Your task to perform on an android device: Open Yahoo.com Image 0: 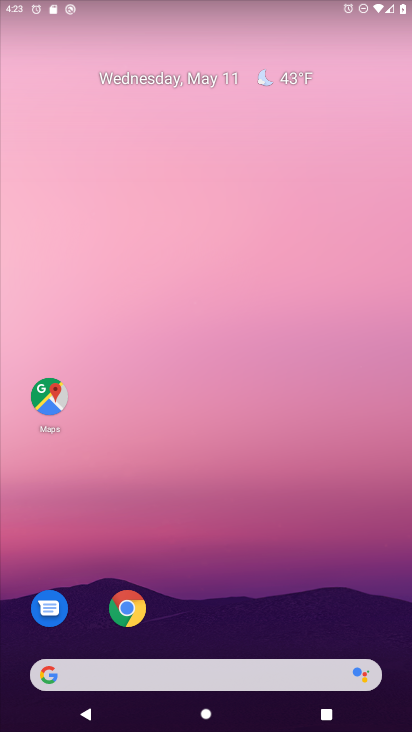
Step 0: click (128, 613)
Your task to perform on an android device: Open Yahoo.com Image 1: 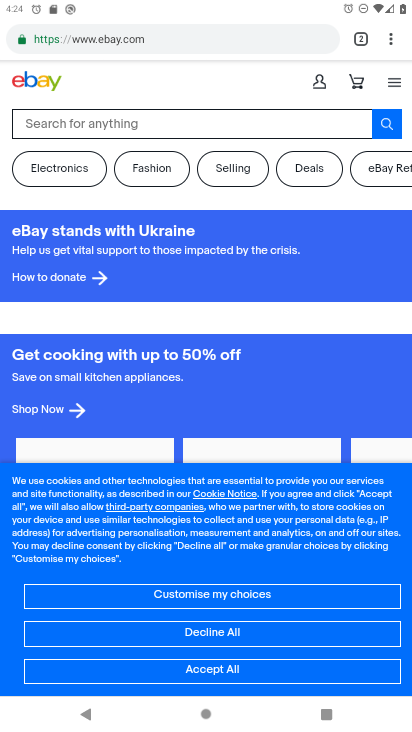
Step 1: click (392, 43)
Your task to perform on an android device: Open Yahoo.com Image 2: 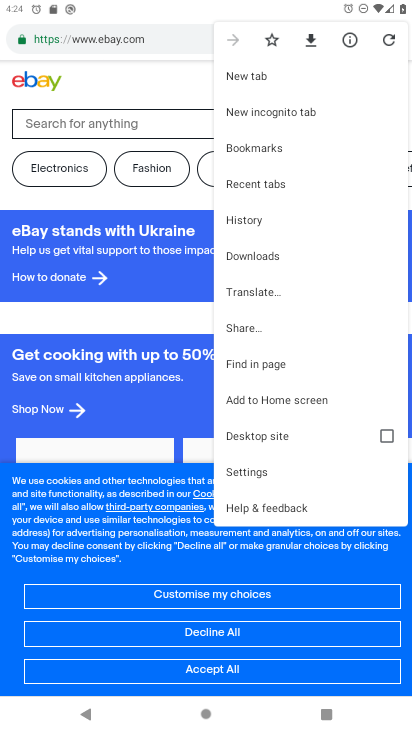
Step 2: click (245, 74)
Your task to perform on an android device: Open Yahoo.com Image 3: 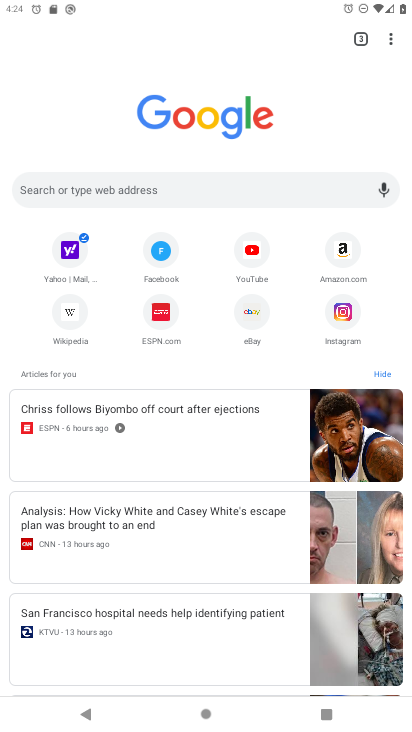
Step 3: click (64, 247)
Your task to perform on an android device: Open Yahoo.com Image 4: 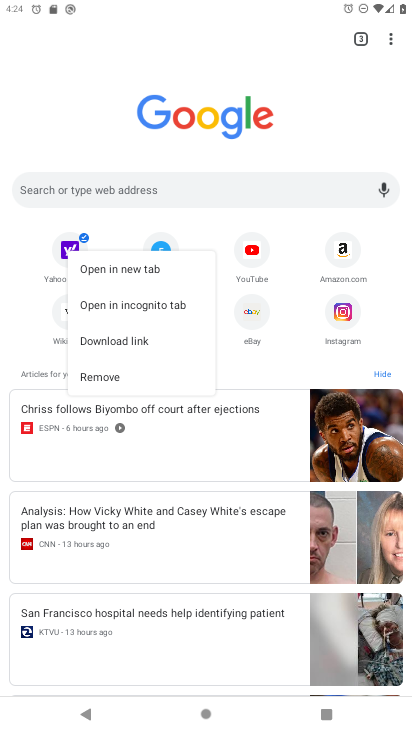
Step 4: click (69, 252)
Your task to perform on an android device: Open Yahoo.com Image 5: 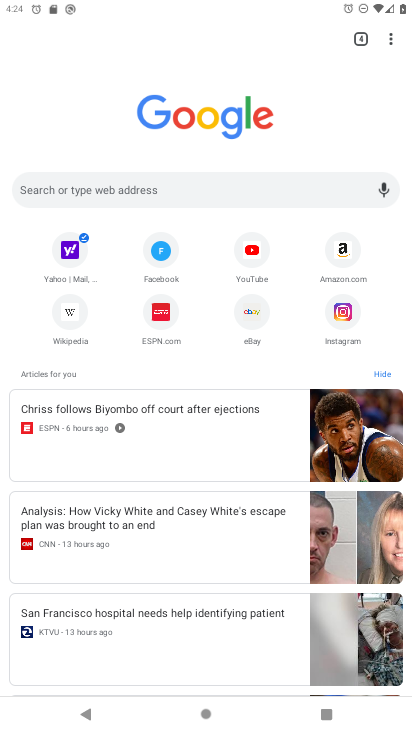
Step 5: click (71, 247)
Your task to perform on an android device: Open Yahoo.com Image 6: 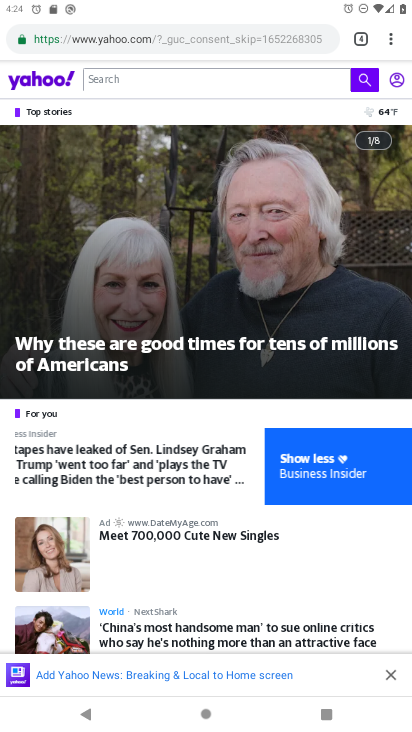
Step 6: task complete